Your task to perform on an android device: delete a single message in the gmail app Image 0: 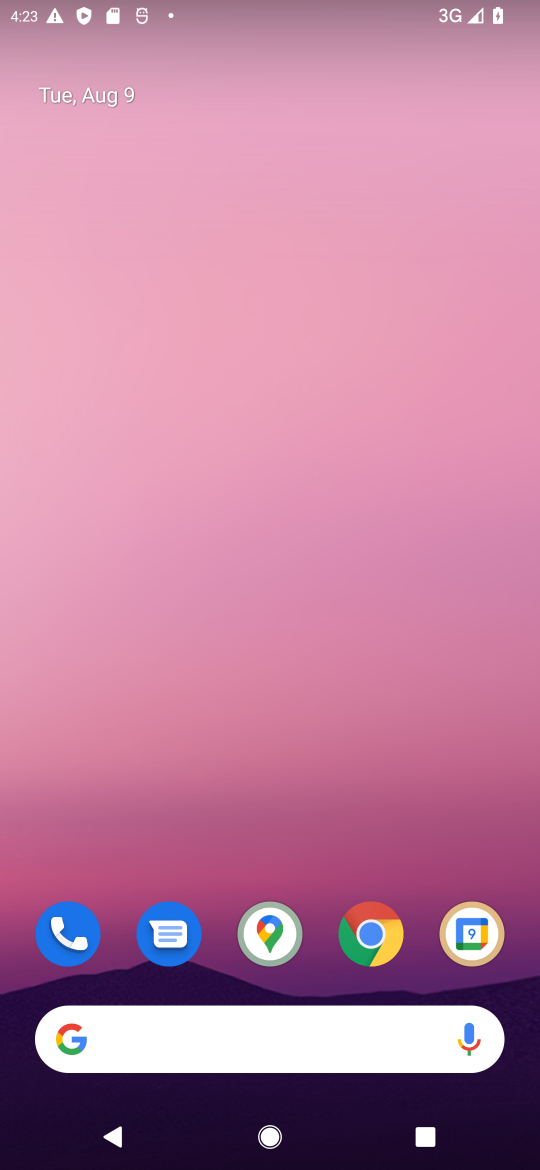
Step 0: drag from (412, 990) to (408, 291)
Your task to perform on an android device: delete a single message in the gmail app Image 1: 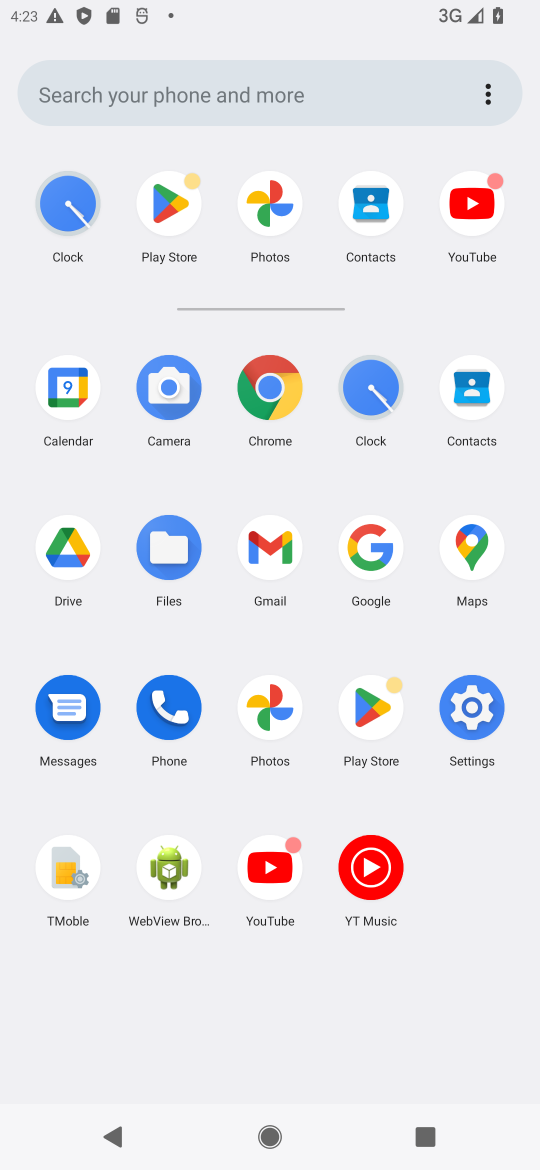
Step 1: click (283, 533)
Your task to perform on an android device: delete a single message in the gmail app Image 2: 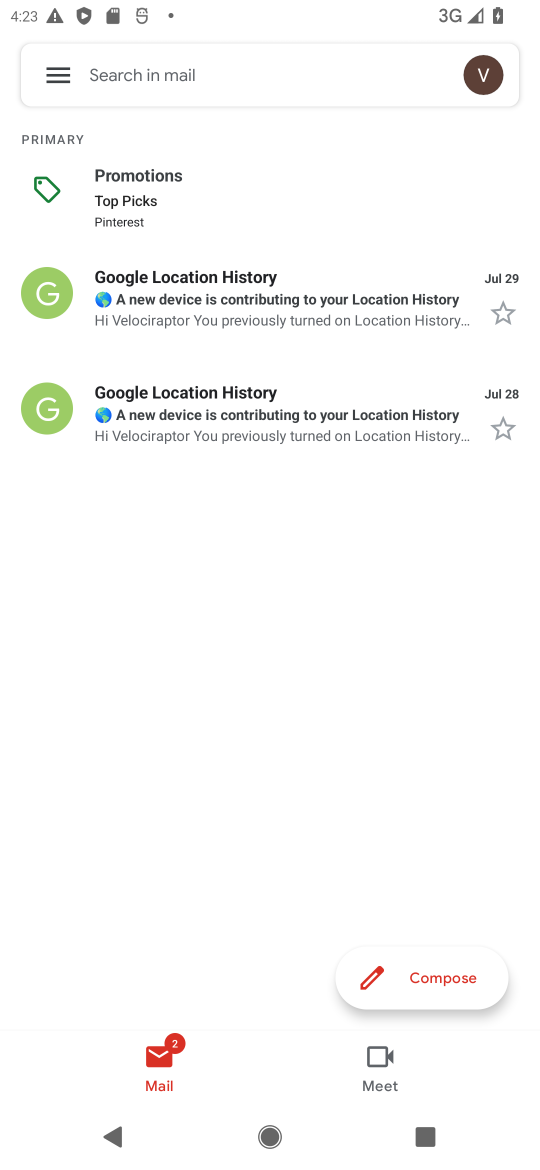
Step 2: task complete